Your task to perform on an android device: Check the news Image 0: 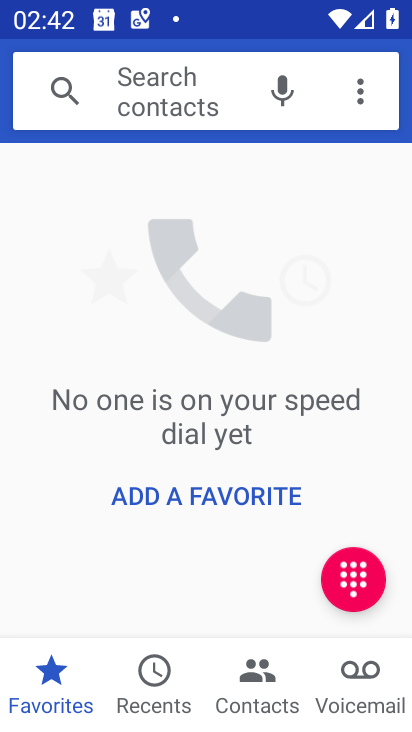
Step 0: click (235, 571)
Your task to perform on an android device: Check the news Image 1: 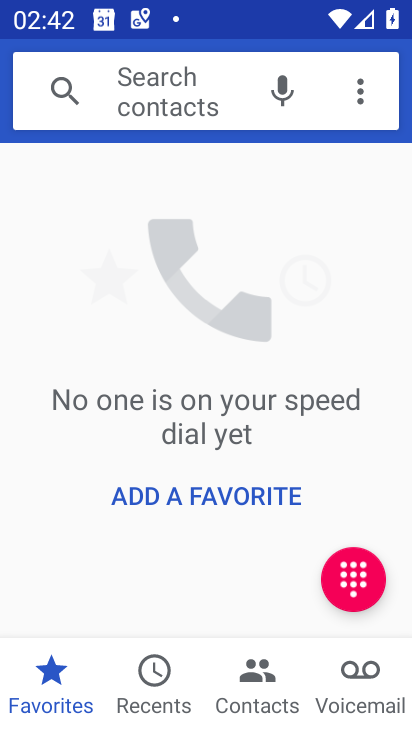
Step 1: press home button
Your task to perform on an android device: Check the news Image 2: 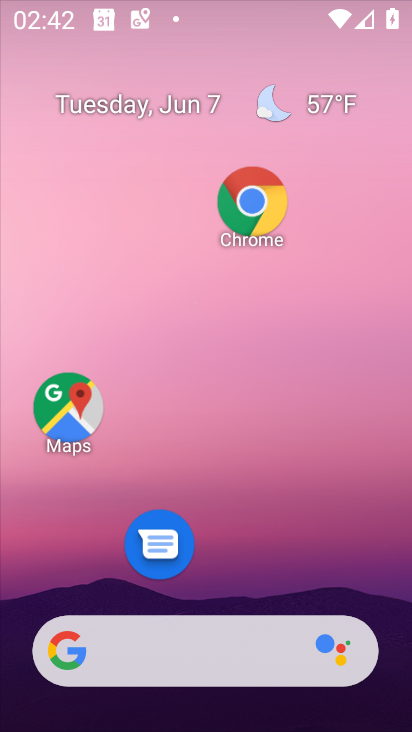
Step 2: click (268, 203)
Your task to perform on an android device: Check the news Image 3: 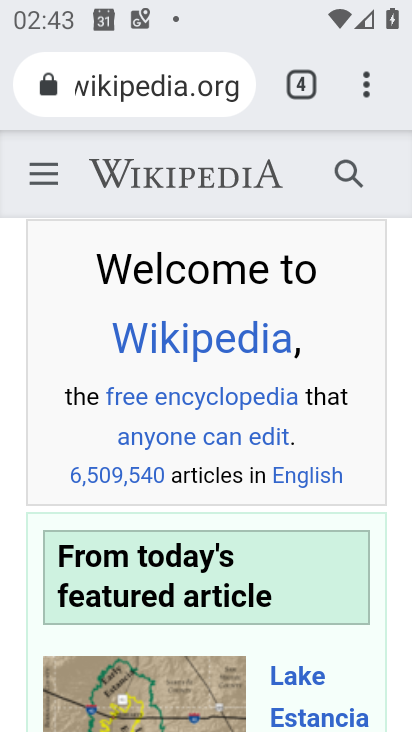
Step 3: click (369, 83)
Your task to perform on an android device: Check the news Image 4: 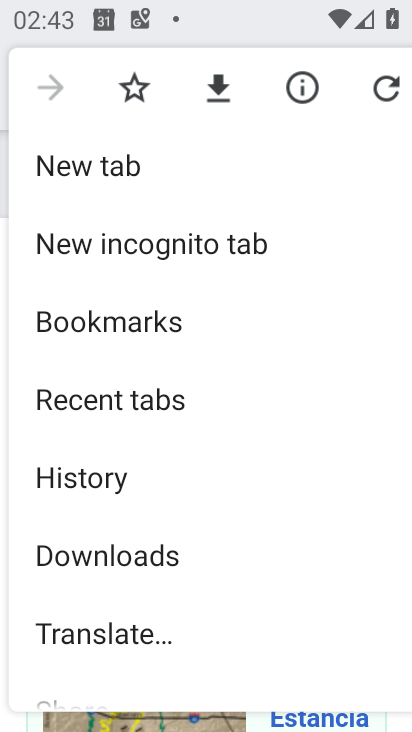
Step 4: click (123, 175)
Your task to perform on an android device: Check the news Image 5: 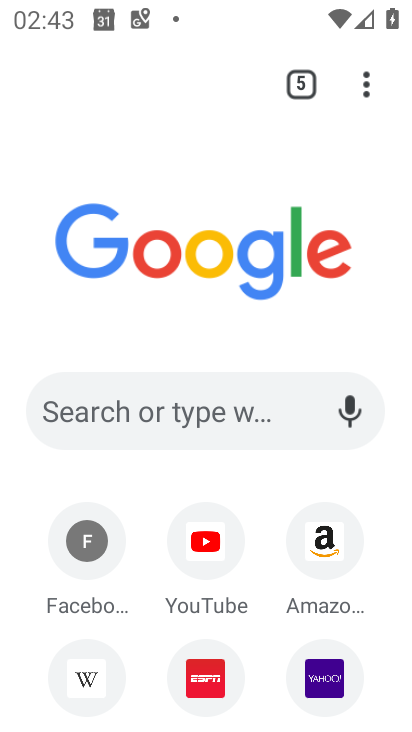
Step 5: click (217, 396)
Your task to perform on an android device: Check the news Image 6: 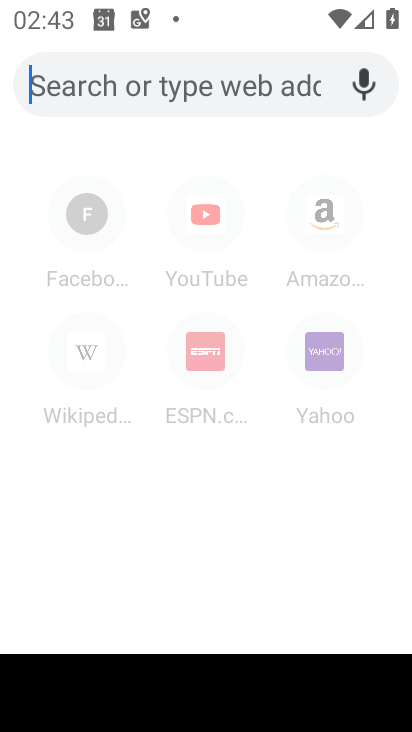
Step 6: type "Check the news"
Your task to perform on an android device: Check the news Image 7: 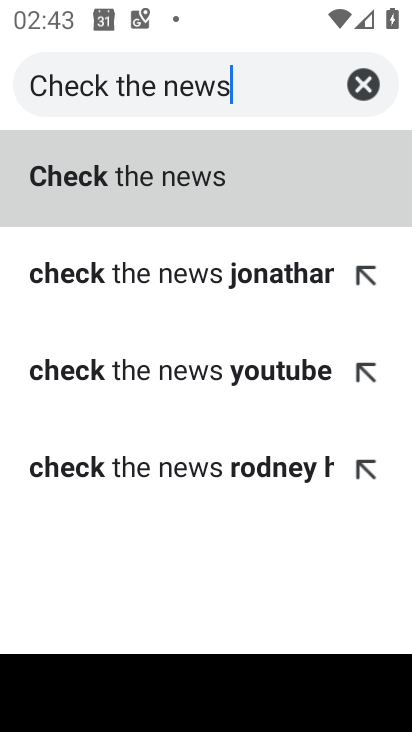
Step 7: click (273, 175)
Your task to perform on an android device: Check the news Image 8: 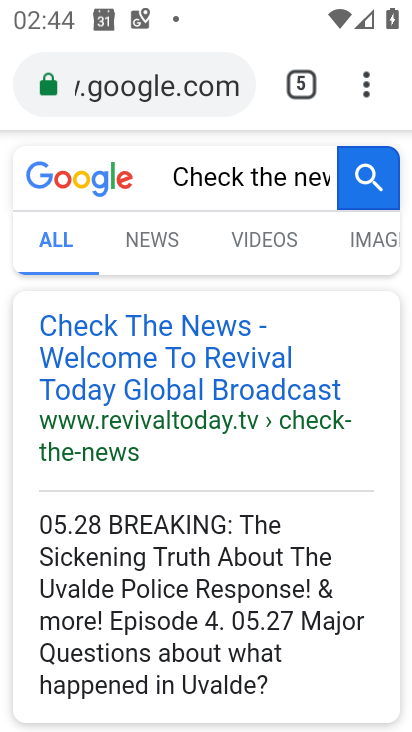
Step 8: task complete